Your task to perform on an android device: Search for pizza restaurants on Maps Image 0: 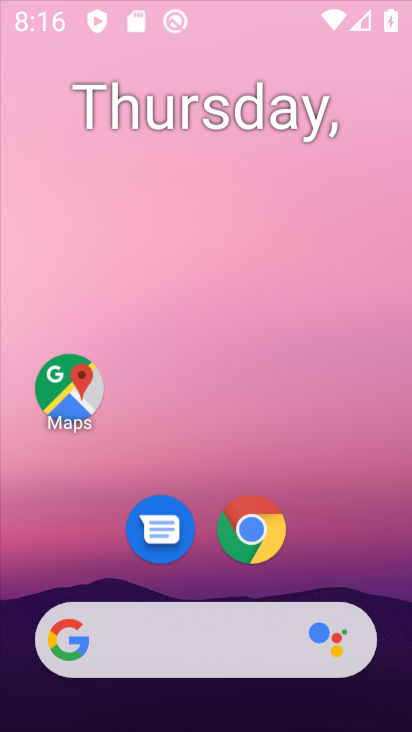
Step 0: press home button
Your task to perform on an android device: Search for pizza restaurants on Maps Image 1: 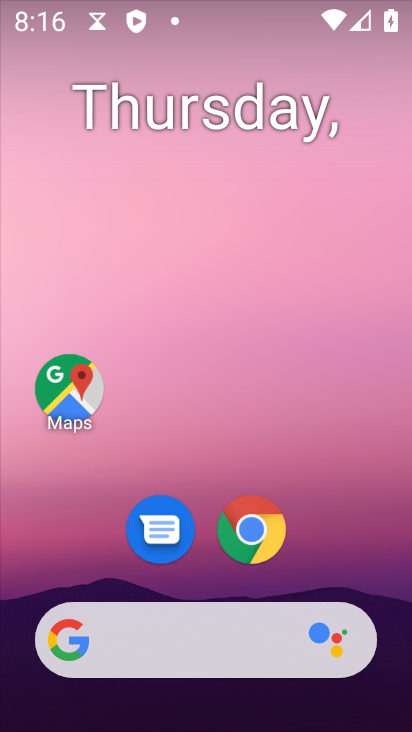
Step 1: click (59, 374)
Your task to perform on an android device: Search for pizza restaurants on Maps Image 2: 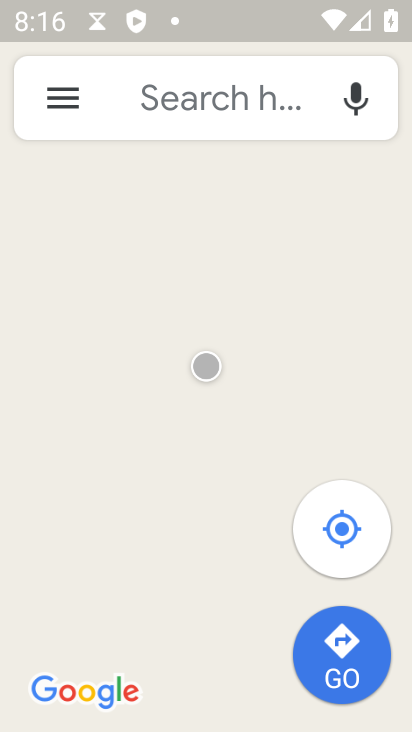
Step 2: click (175, 101)
Your task to perform on an android device: Search for pizza restaurants on Maps Image 3: 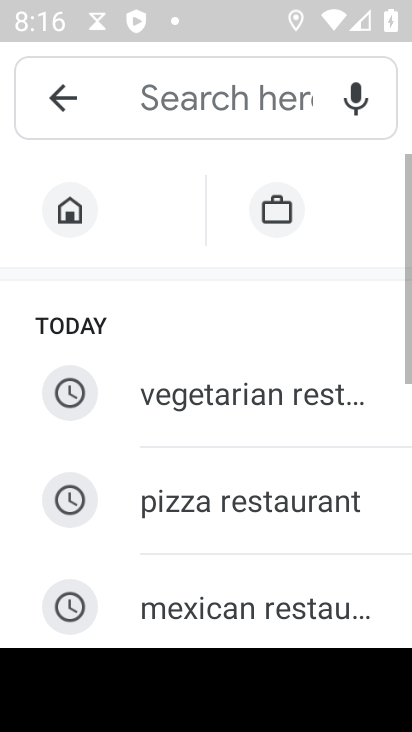
Step 3: type "pizza"
Your task to perform on an android device: Search for pizza restaurants on Maps Image 4: 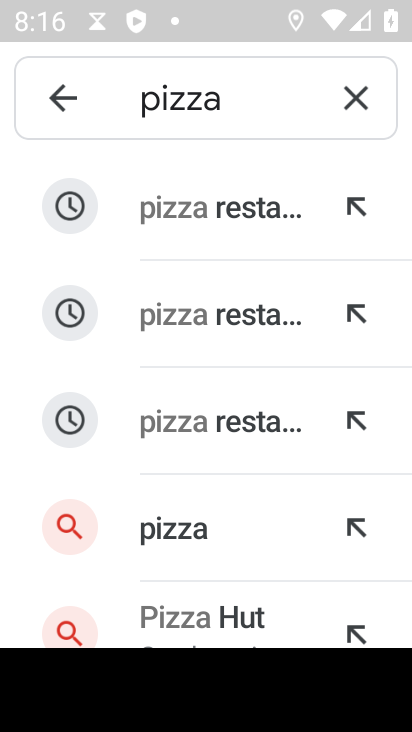
Step 4: click (221, 220)
Your task to perform on an android device: Search for pizza restaurants on Maps Image 5: 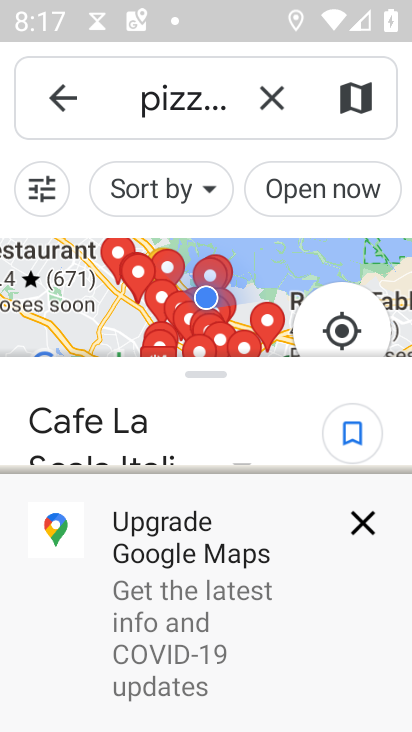
Step 5: click (361, 526)
Your task to perform on an android device: Search for pizza restaurants on Maps Image 6: 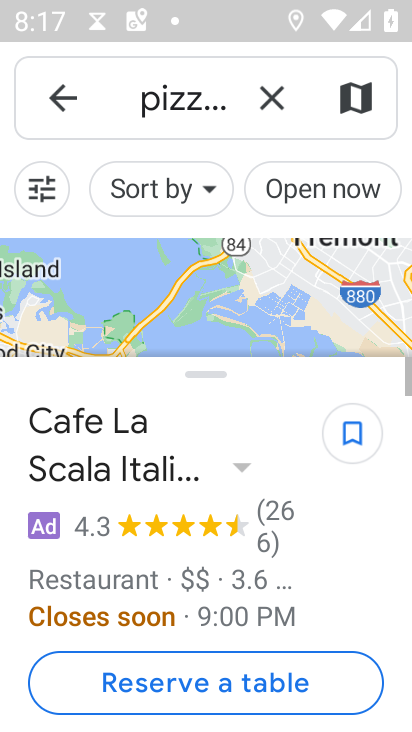
Step 6: task complete